Your task to perform on an android device: Open calendar and show me the third week of next month Image 0: 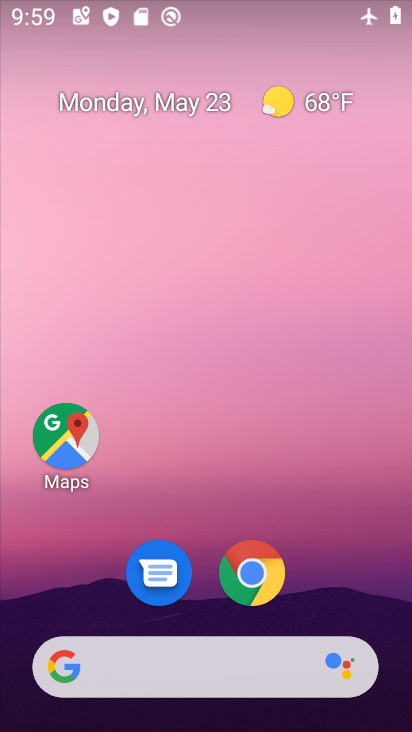
Step 0: drag from (215, 621) to (271, 170)
Your task to perform on an android device: Open calendar and show me the third week of next month Image 1: 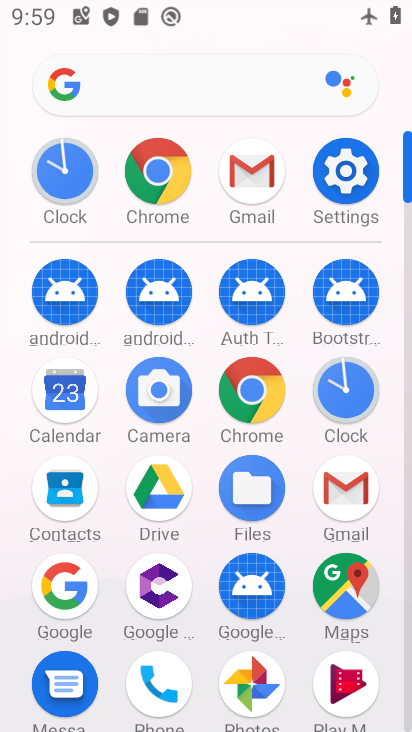
Step 1: click (78, 403)
Your task to perform on an android device: Open calendar and show me the third week of next month Image 2: 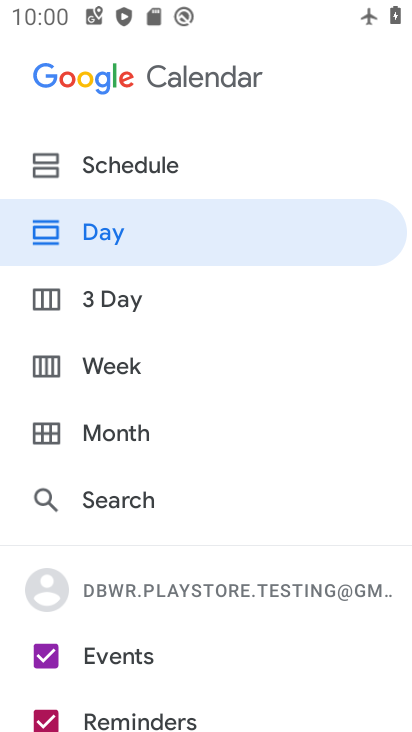
Step 2: press back button
Your task to perform on an android device: Open calendar and show me the third week of next month Image 3: 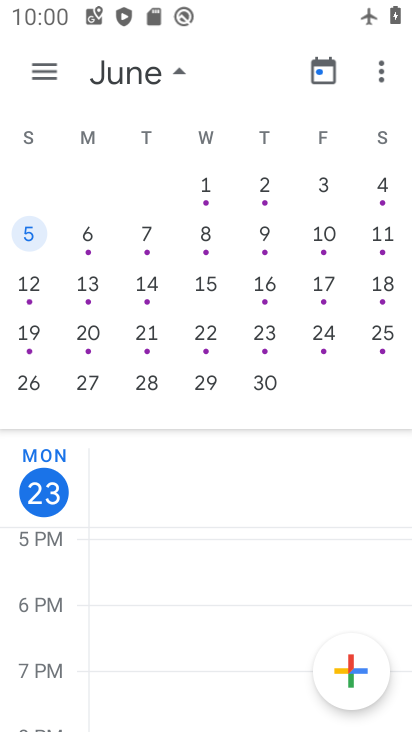
Step 3: click (37, 295)
Your task to perform on an android device: Open calendar and show me the third week of next month Image 4: 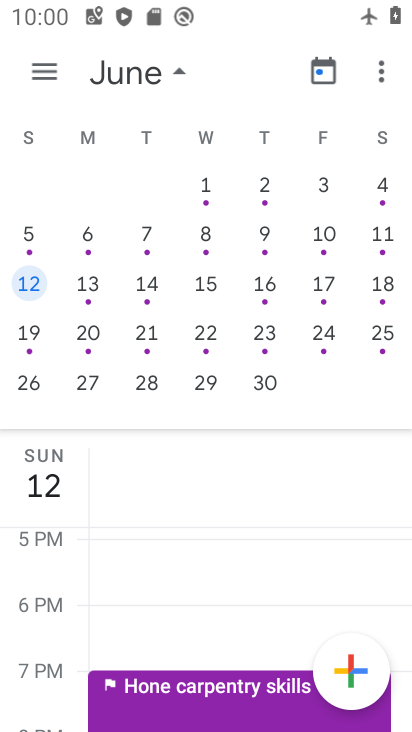
Step 4: task complete